Your task to perform on an android device: Search for sushi restaurants on Maps Image 0: 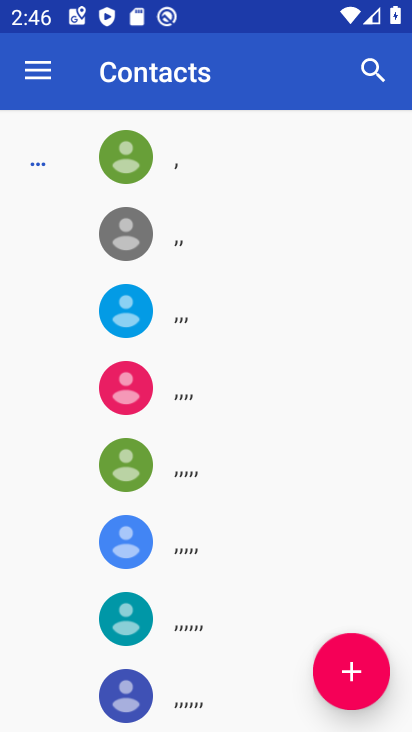
Step 0: press home button
Your task to perform on an android device: Search for sushi restaurants on Maps Image 1: 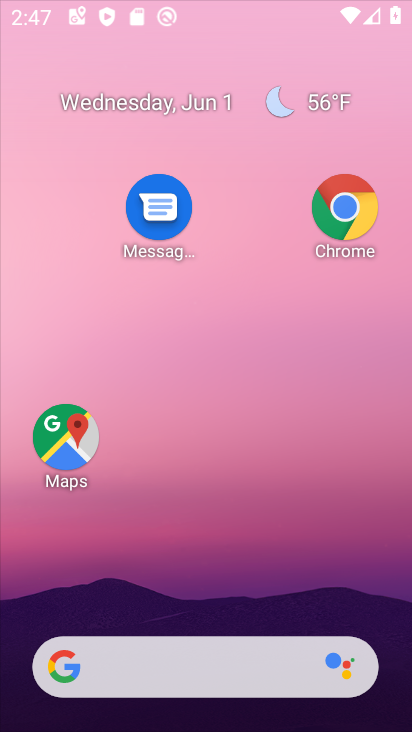
Step 1: drag from (215, 561) to (264, 185)
Your task to perform on an android device: Search for sushi restaurants on Maps Image 2: 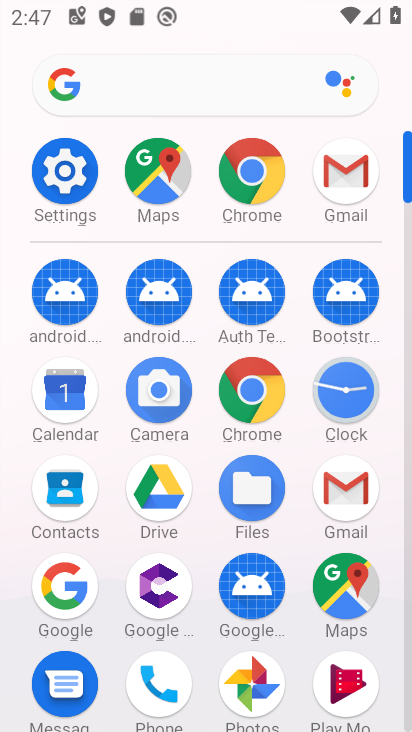
Step 2: click (348, 598)
Your task to perform on an android device: Search for sushi restaurants on Maps Image 3: 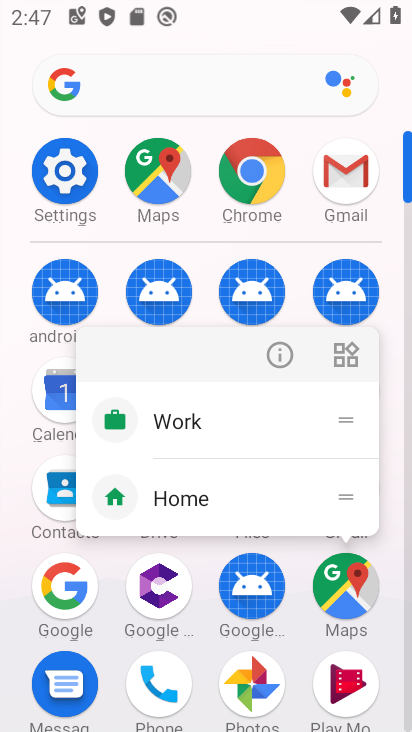
Step 3: click (278, 351)
Your task to perform on an android device: Search for sushi restaurants on Maps Image 4: 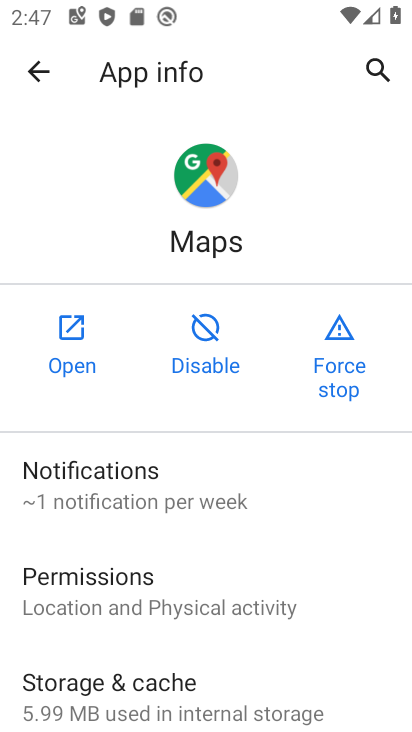
Step 4: click (31, 347)
Your task to perform on an android device: Search for sushi restaurants on Maps Image 5: 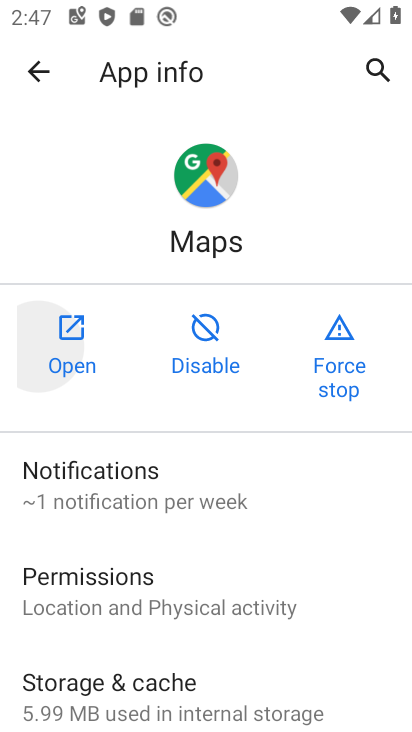
Step 5: click (53, 347)
Your task to perform on an android device: Search for sushi restaurants on Maps Image 6: 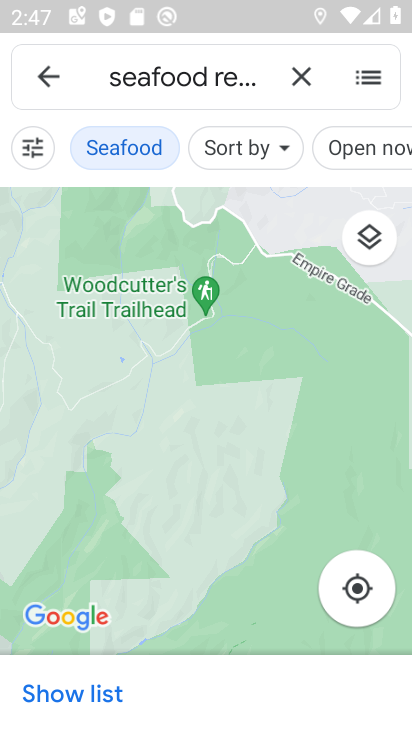
Step 6: click (296, 83)
Your task to perform on an android device: Search for sushi restaurants on Maps Image 7: 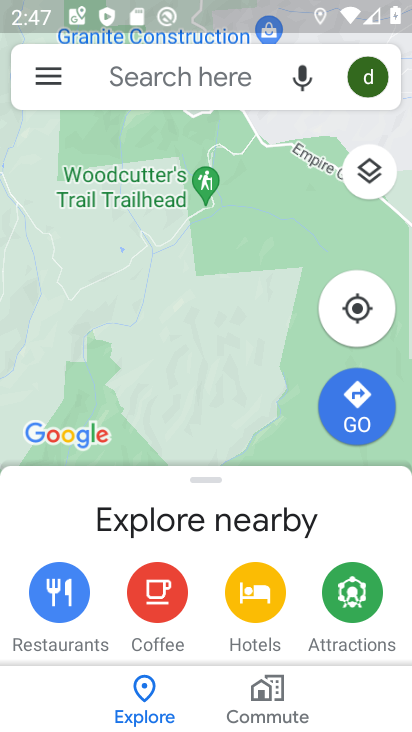
Step 7: click (140, 63)
Your task to perform on an android device: Search for sushi restaurants on Maps Image 8: 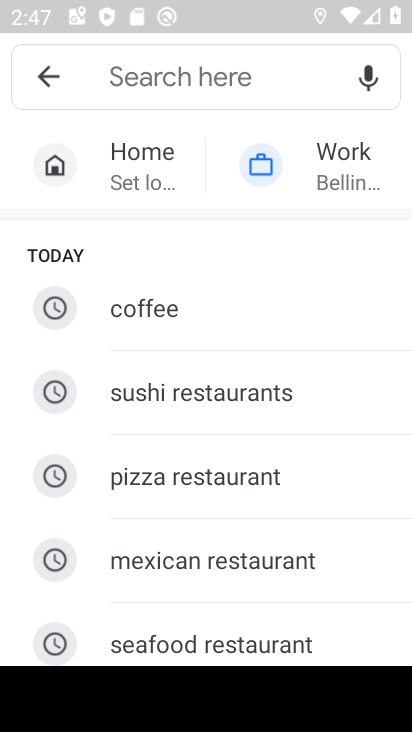
Step 8: click (166, 398)
Your task to perform on an android device: Search for sushi restaurants on Maps Image 9: 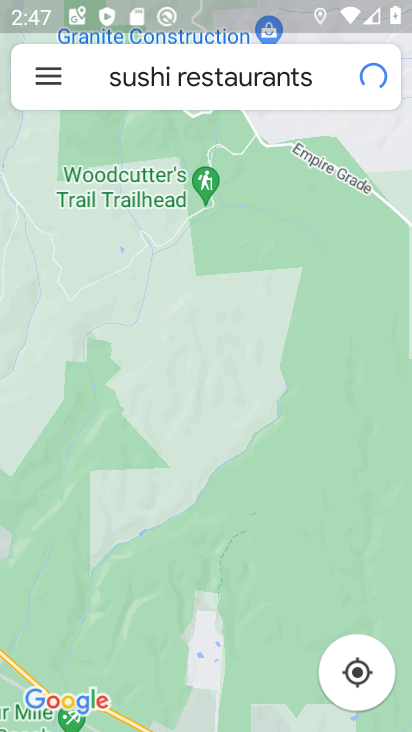
Step 9: task complete